Your task to perform on an android device: How much does a 2 bedroom apartment rent for in Portland? Image 0: 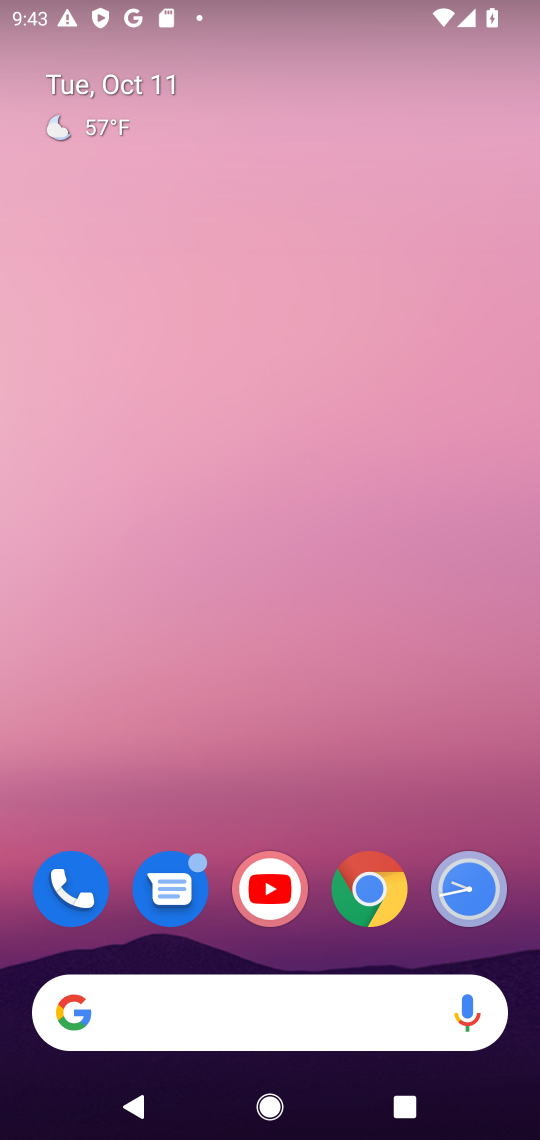
Step 0: click (205, 1025)
Your task to perform on an android device: How much does a 2 bedroom apartment rent for in Portland? Image 1: 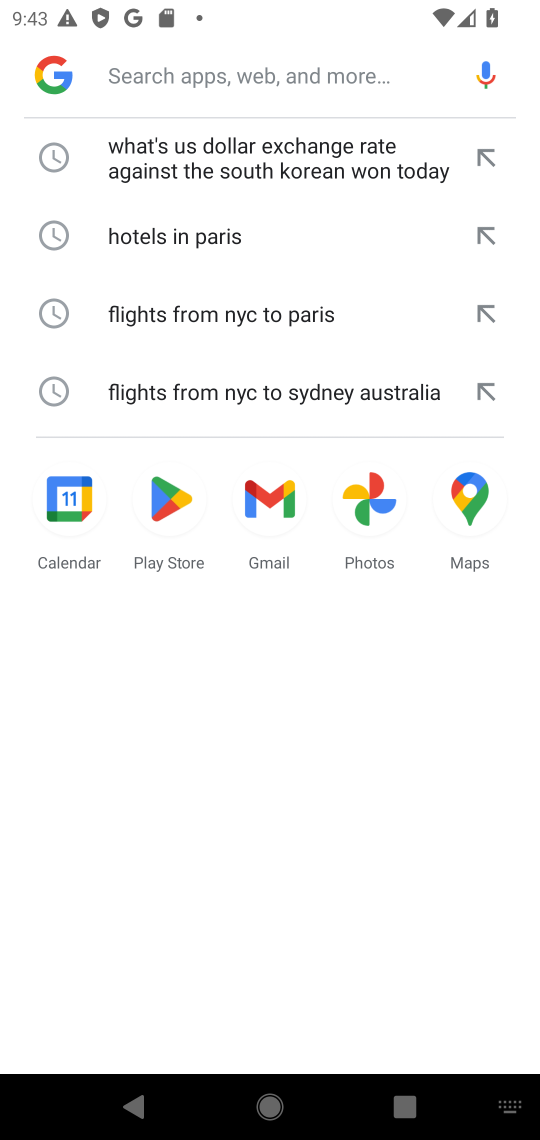
Step 1: click (215, 55)
Your task to perform on an android device: How much does a 2 bedroom apartment rent for in Portland? Image 2: 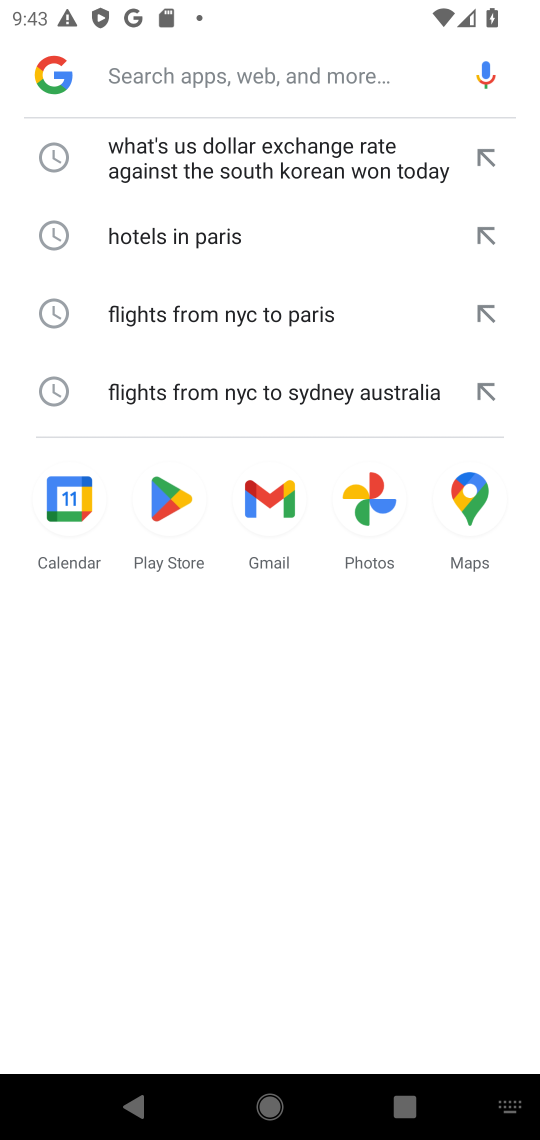
Step 2: type "How much does a 2 bedroom apartment rent for in Portland?"
Your task to perform on an android device: How much does a 2 bedroom apartment rent for in Portland? Image 3: 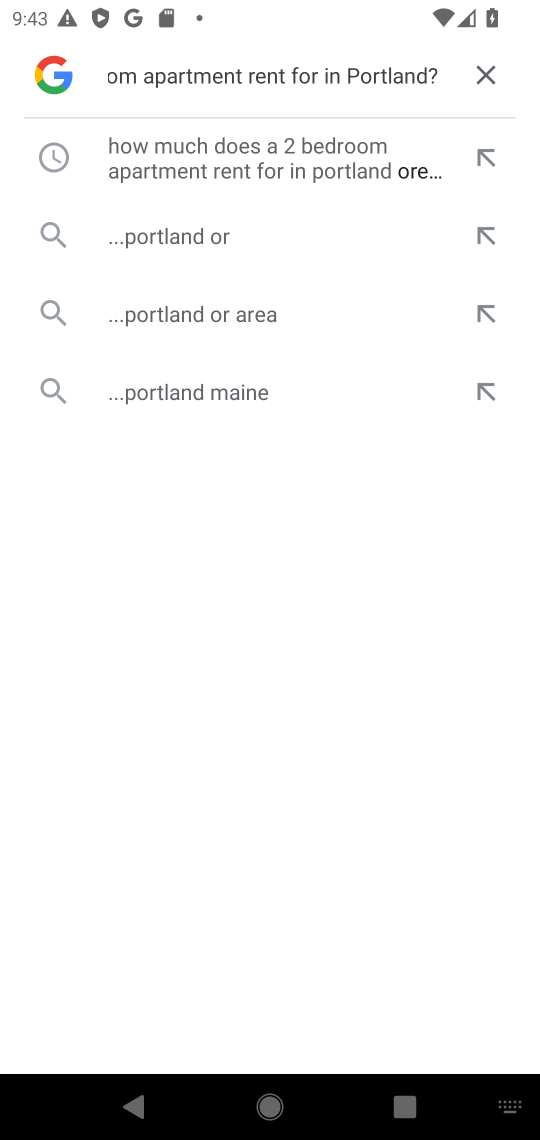
Step 3: click (198, 164)
Your task to perform on an android device: How much does a 2 bedroom apartment rent for in Portland? Image 4: 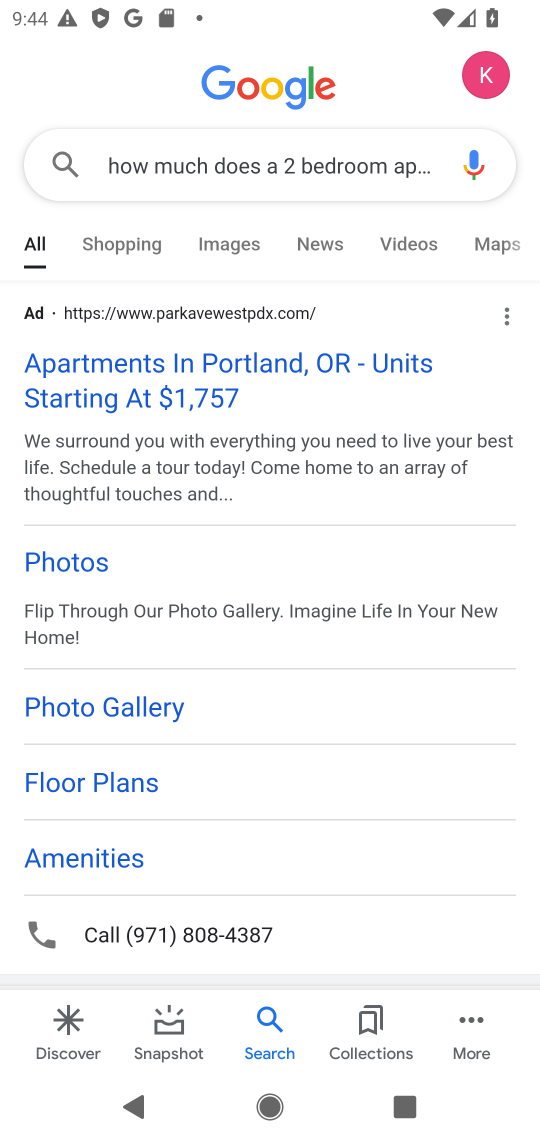
Step 4: task complete